Your task to perform on an android device: read, delete, or share a saved page in the chrome app Image 0: 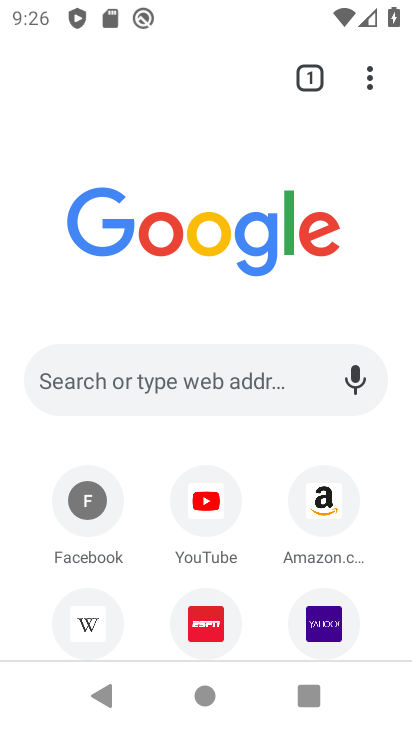
Step 0: task complete